Your task to perform on an android device: Open calendar and show me the fourth week of next month Image 0: 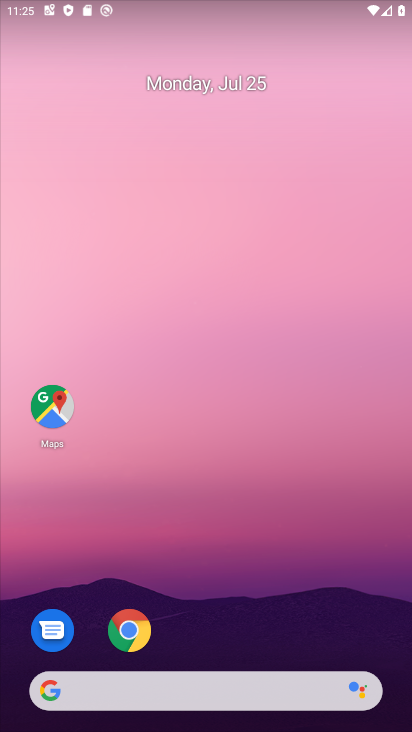
Step 0: drag from (316, 613) to (321, 129)
Your task to perform on an android device: Open calendar and show me the fourth week of next month Image 1: 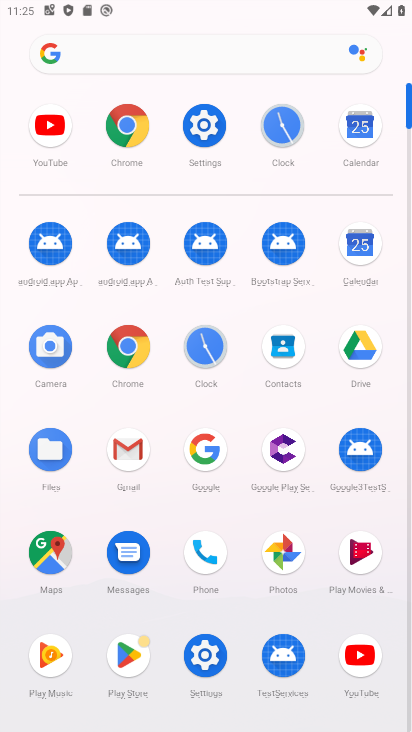
Step 1: click (371, 133)
Your task to perform on an android device: Open calendar and show me the fourth week of next month Image 2: 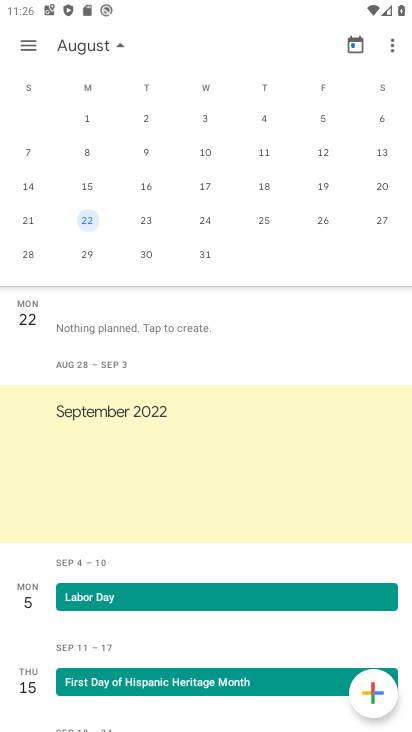
Step 2: task complete